Your task to perform on an android device: visit the assistant section in the google photos Image 0: 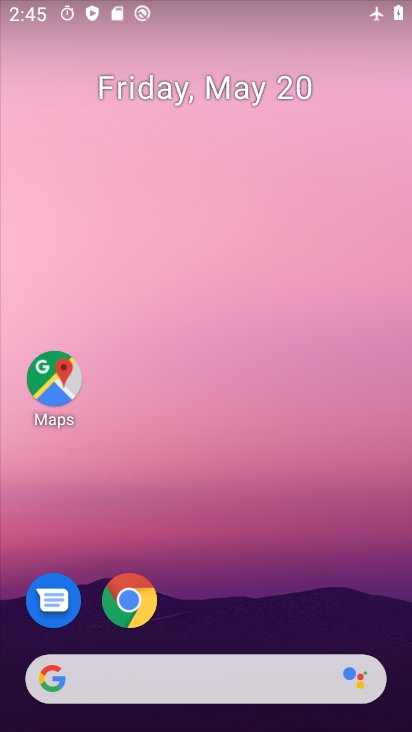
Step 0: drag from (264, 535) to (298, 12)
Your task to perform on an android device: visit the assistant section in the google photos Image 1: 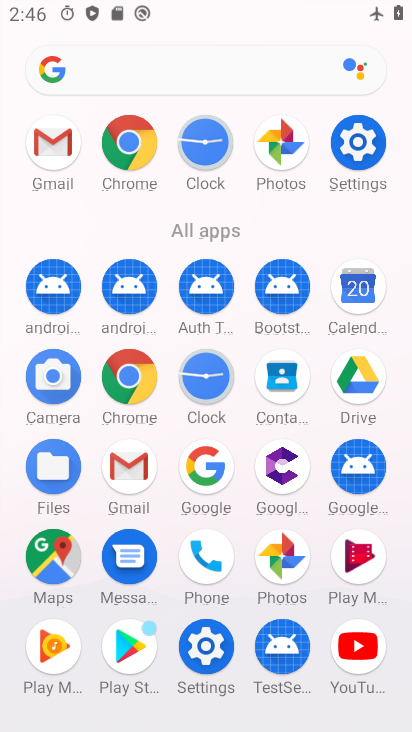
Step 1: drag from (11, 541) to (4, 224)
Your task to perform on an android device: visit the assistant section in the google photos Image 2: 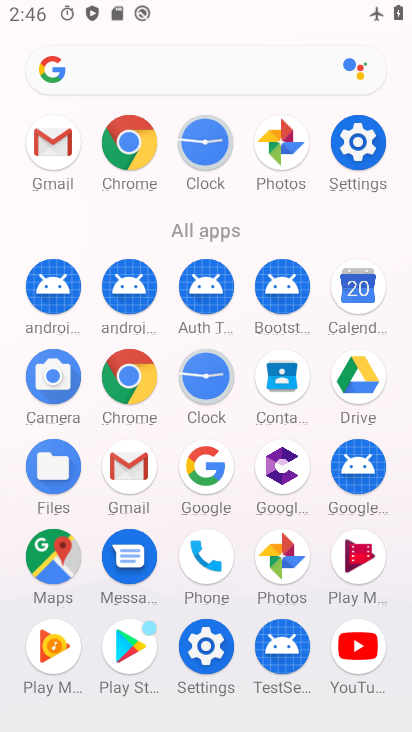
Step 2: click (283, 551)
Your task to perform on an android device: visit the assistant section in the google photos Image 3: 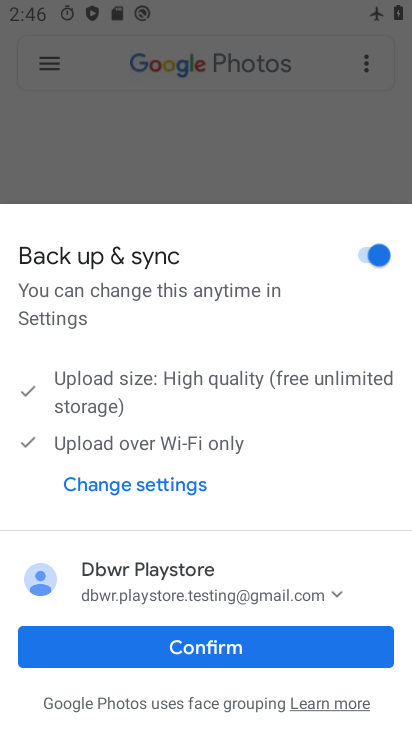
Step 3: click (183, 643)
Your task to perform on an android device: visit the assistant section in the google photos Image 4: 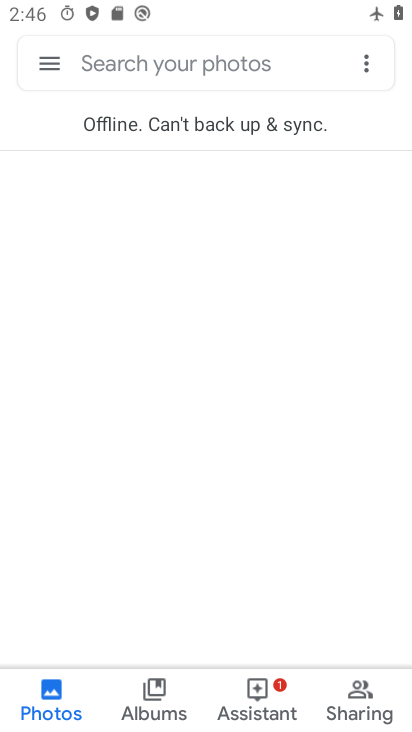
Step 4: click (261, 702)
Your task to perform on an android device: visit the assistant section in the google photos Image 5: 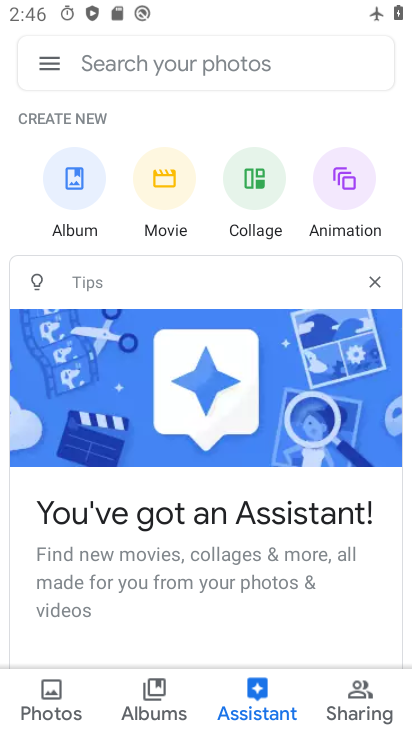
Step 5: task complete